Your task to perform on an android device: Go to Amazon Image 0: 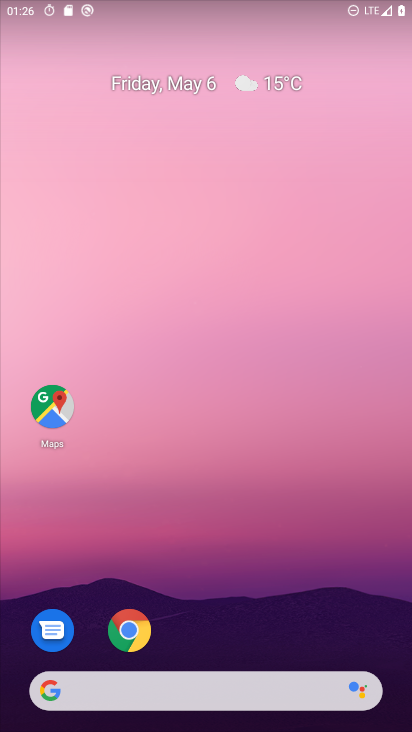
Step 0: click (125, 622)
Your task to perform on an android device: Go to Amazon Image 1: 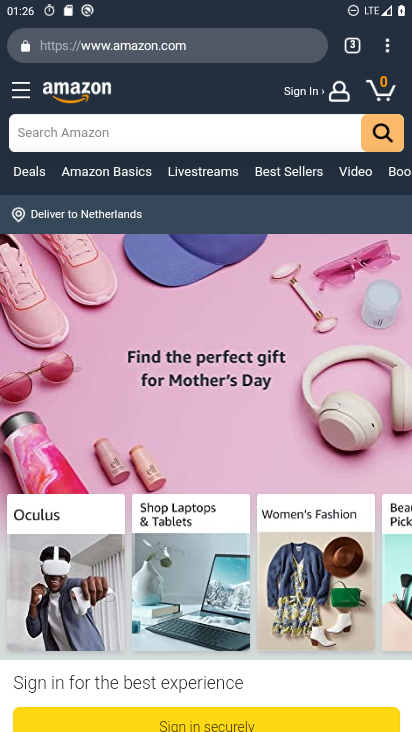
Step 1: task complete